Your task to perform on an android device: turn on airplane mode Image 0: 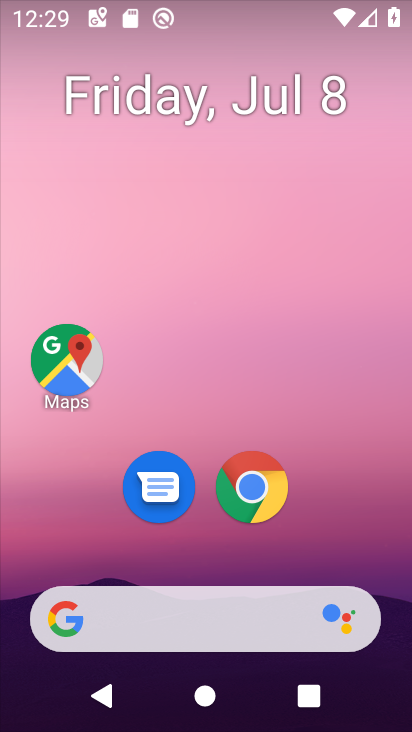
Step 0: drag from (358, 555) to (337, 76)
Your task to perform on an android device: turn on airplane mode Image 1: 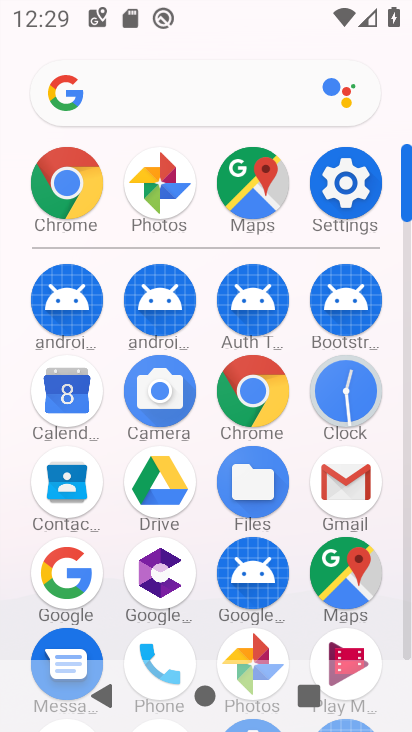
Step 1: click (349, 187)
Your task to perform on an android device: turn on airplane mode Image 2: 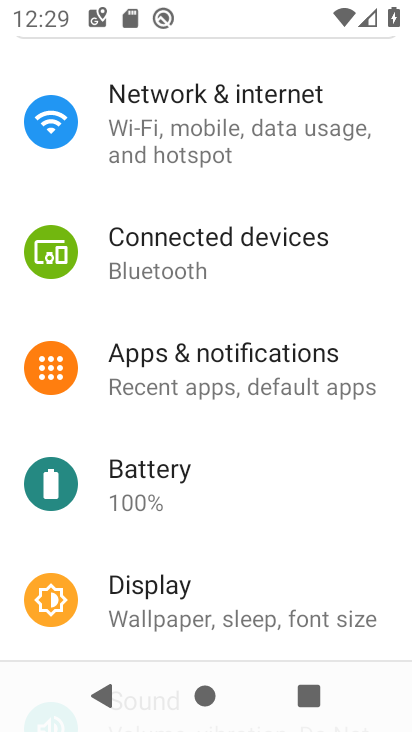
Step 2: click (254, 133)
Your task to perform on an android device: turn on airplane mode Image 3: 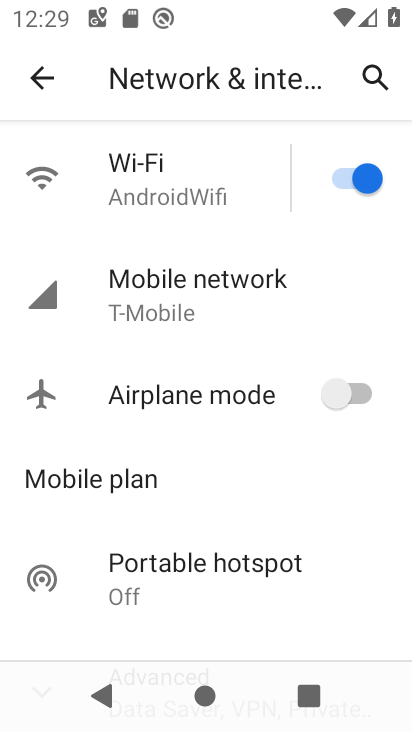
Step 3: click (339, 398)
Your task to perform on an android device: turn on airplane mode Image 4: 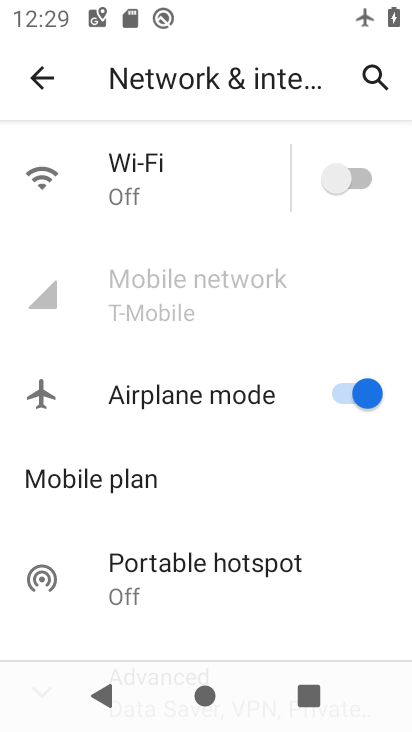
Step 4: task complete